Your task to perform on an android device: see tabs open on other devices in the chrome app Image 0: 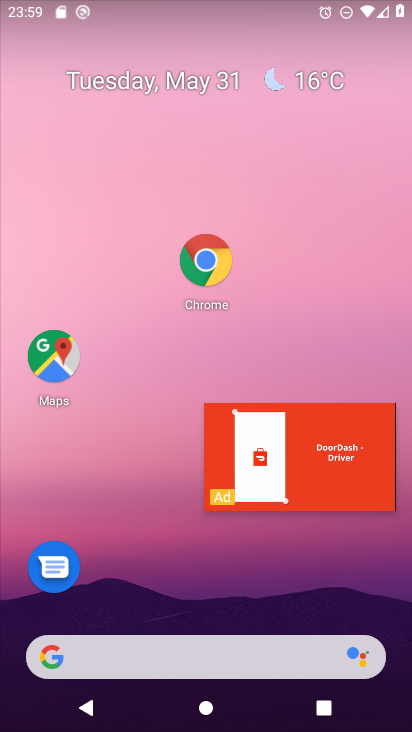
Step 0: drag from (241, 640) to (256, 280)
Your task to perform on an android device: see tabs open on other devices in the chrome app Image 1: 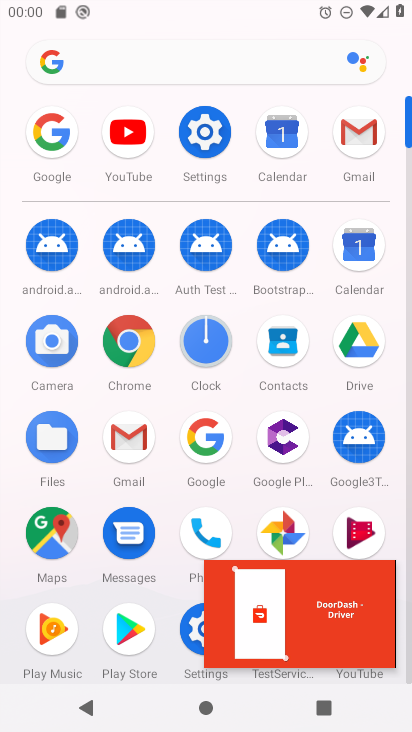
Step 1: click (306, 625)
Your task to perform on an android device: see tabs open on other devices in the chrome app Image 2: 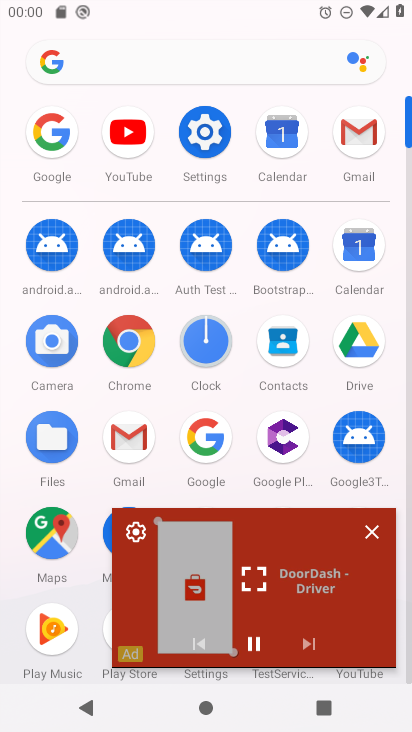
Step 2: click (373, 531)
Your task to perform on an android device: see tabs open on other devices in the chrome app Image 3: 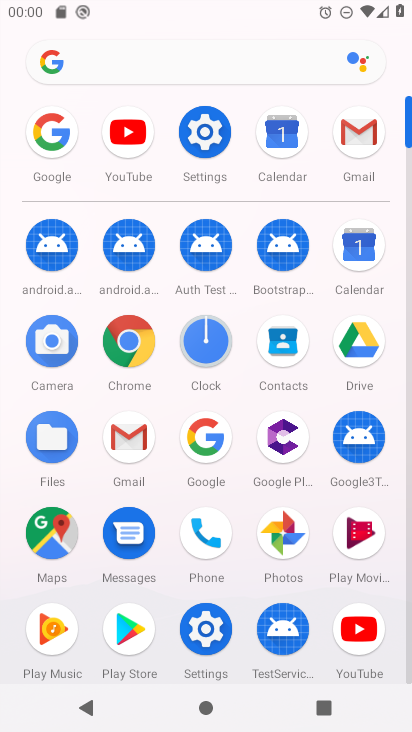
Step 3: click (144, 352)
Your task to perform on an android device: see tabs open on other devices in the chrome app Image 4: 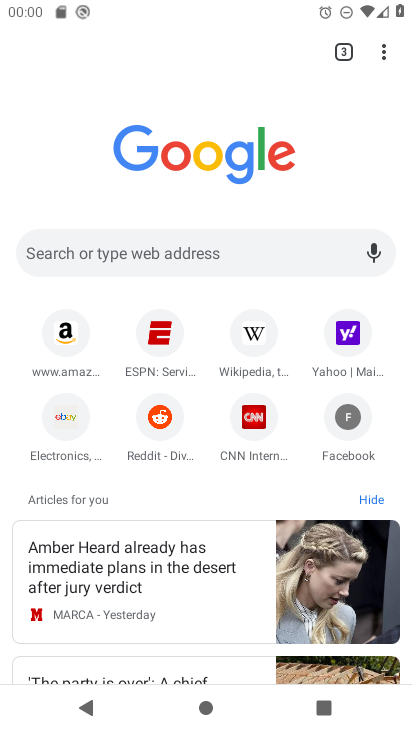
Step 4: click (337, 51)
Your task to perform on an android device: see tabs open on other devices in the chrome app Image 5: 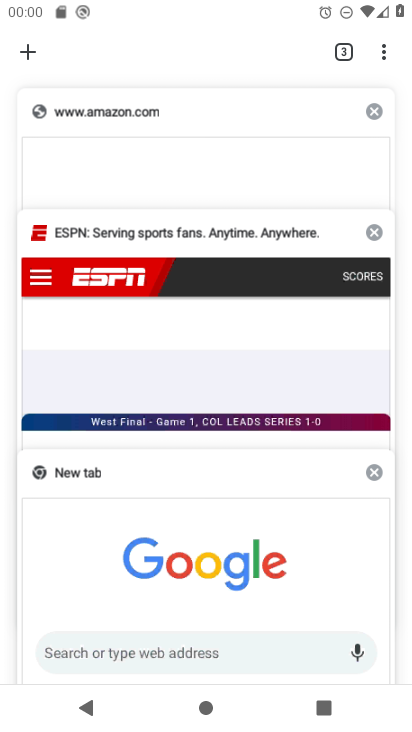
Step 5: task complete